Your task to perform on an android device: Open the web browser Image 0: 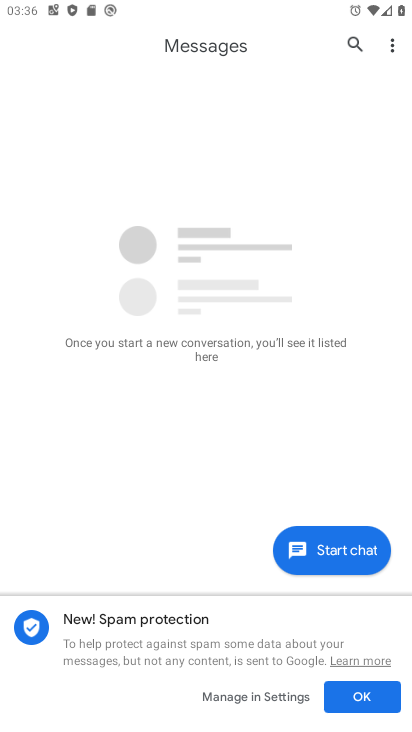
Step 0: press back button
Your task to perform on an android device: Open the web browser Image 1: 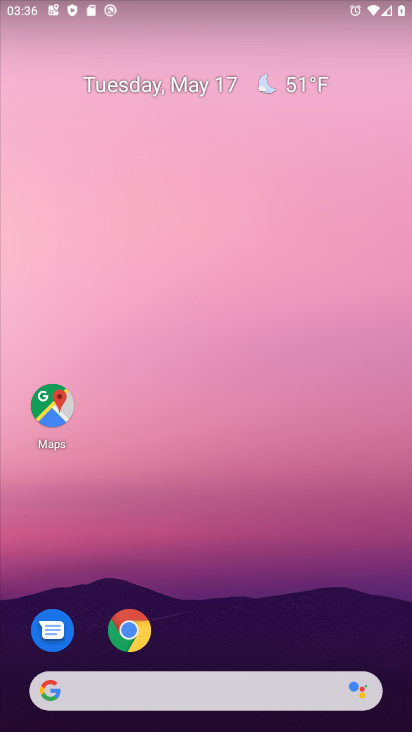
Step 1: click (127, 639)
Your task to perform on an android device: Open the web browser Image 2: 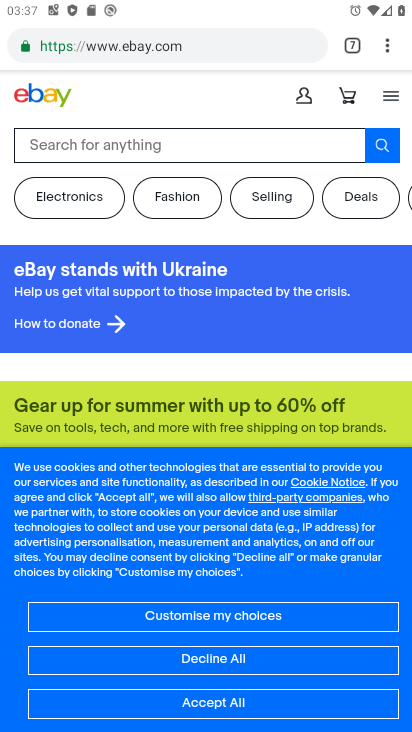
Step 2: task complete